Your task to perform on an android device: turn notification dots on Image 0: 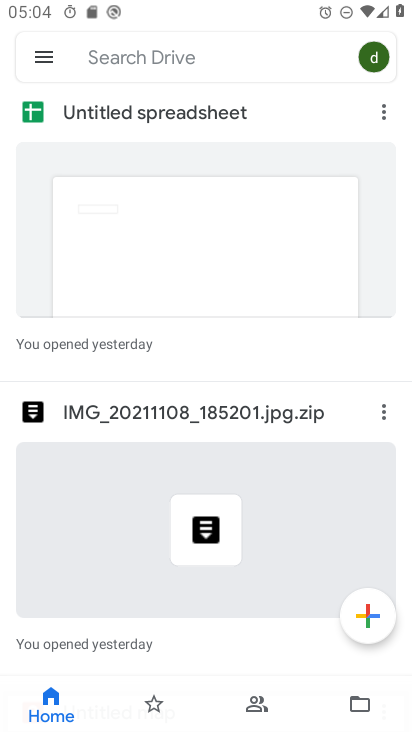
Step 0: press home button
Your task to perform on an android device: turn notification dots on Image 1: 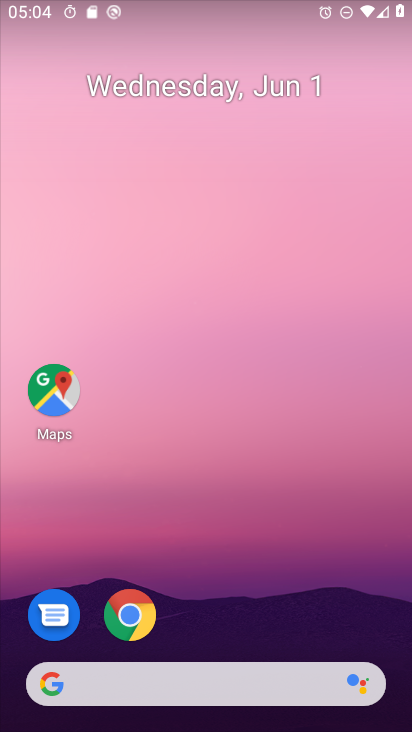
Step 1: drag from (310, 680) to (344, 7)
Your task to perform on an android device: turn notification dots on Image 2: 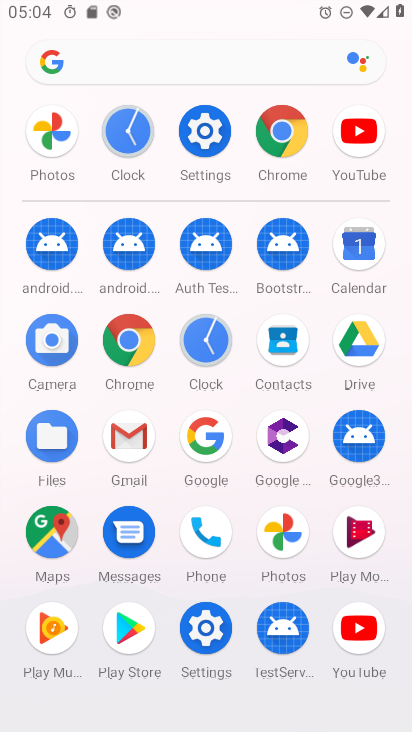
Step 2: click (210, 136)
Your task to perform on an android device: turn notification dots on Image 3: 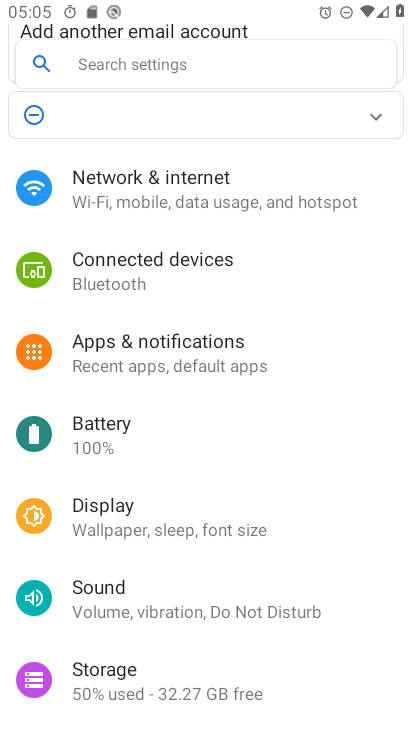
Step 3: click (213, 359)
Your task to perform on an android device: turn notification dots on Image 4: 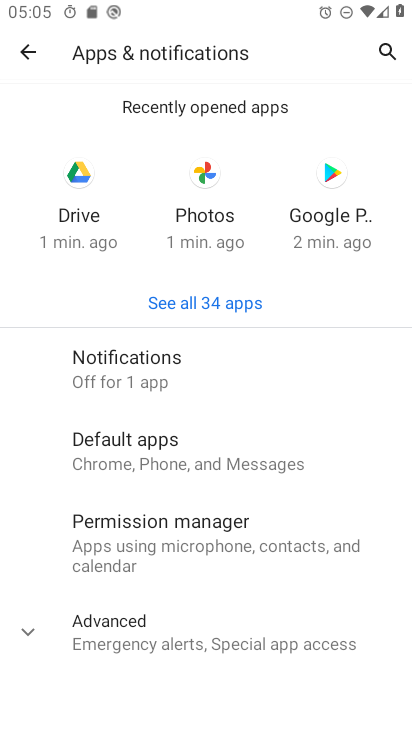
Step 4: drag from (260, 652) to (235, 373)
Your task to perform on an android device: turn notification dots on Image 5: 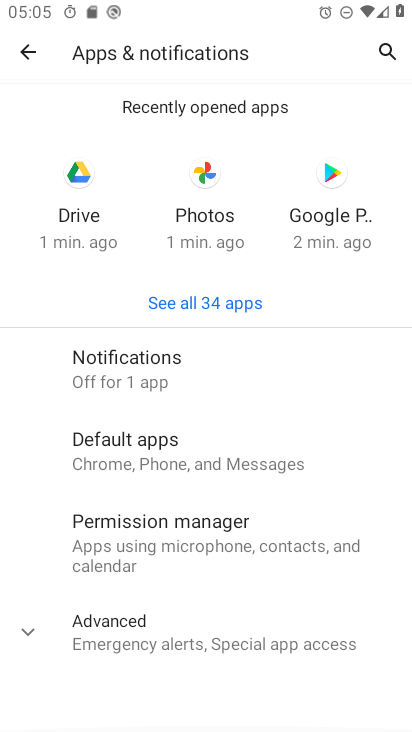
Step 5: click (198, 369)
Your task to perform on an android device: turn notification dots on Image 6: 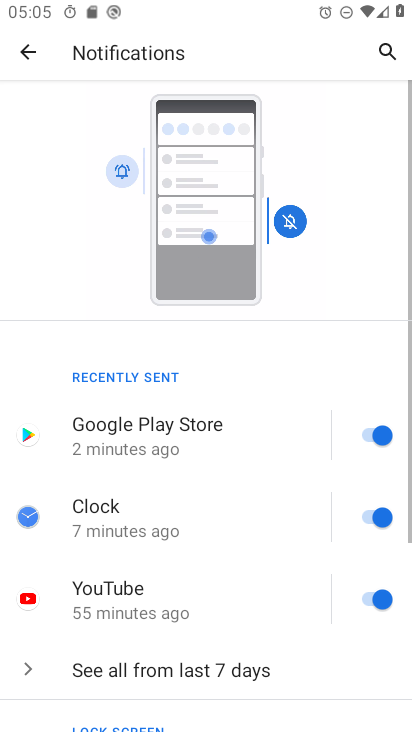
Step 6: drag from (262, 634) to (240, 144)
Your task to perform on an android device: turn notification dots on Image 7: 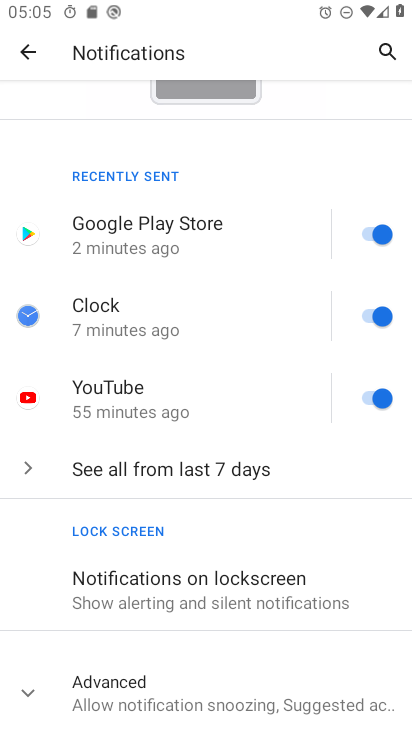
Step 7: click (220, 699)
Your task to perform on an android device: turn notification dots on Image 8: 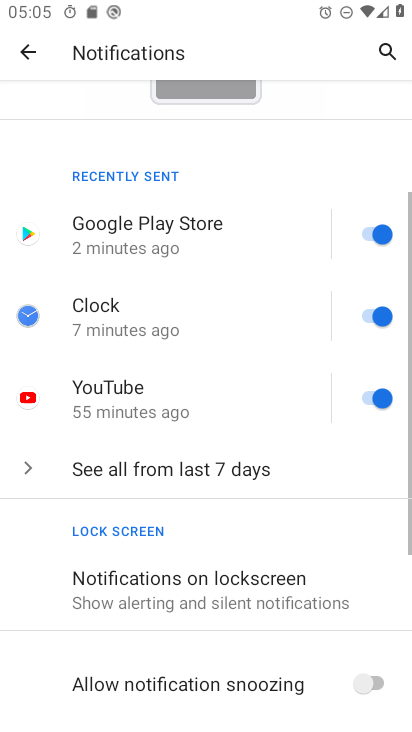
Step 8: drag from (222, 658) to (247, 224)
Your task to perform on an android device: turn notification dots on Image 9: 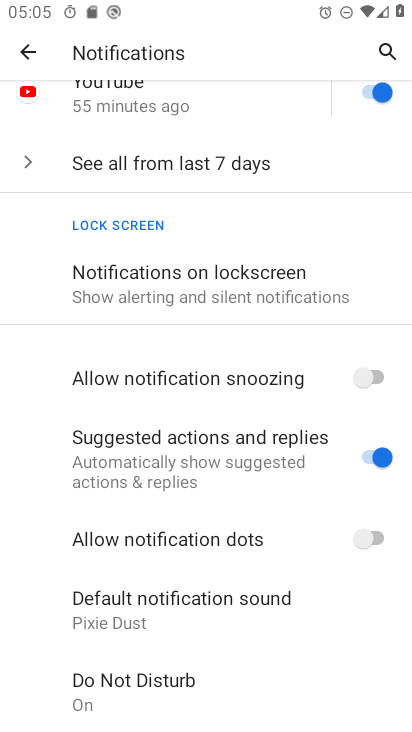
Step 9: click (367, 535)
Your task to perform on an android device: turn notification dots on Image 10: 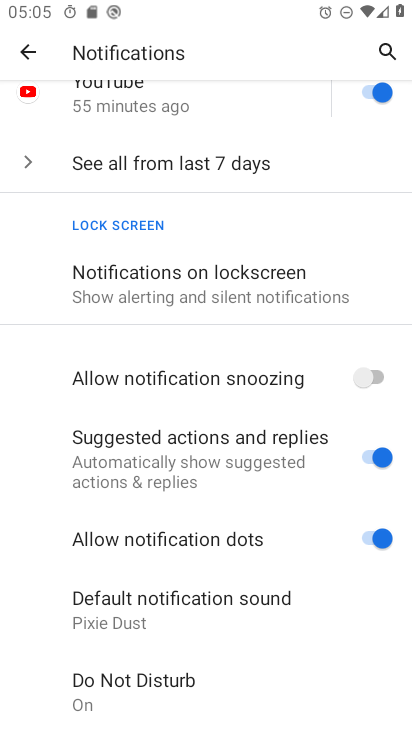
Step 10: task complete